Your task to perform on an android device: turn off picture-in-picture Image 0: 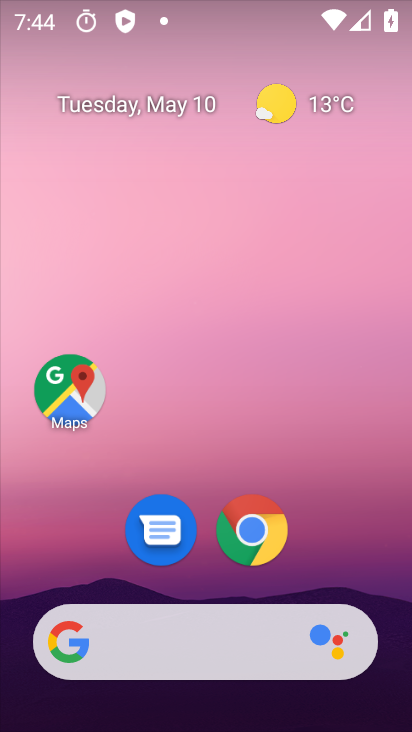
Step 0: click (257, 531)
Your task to perform on an android device: turn off picture-in-picture Image 1: 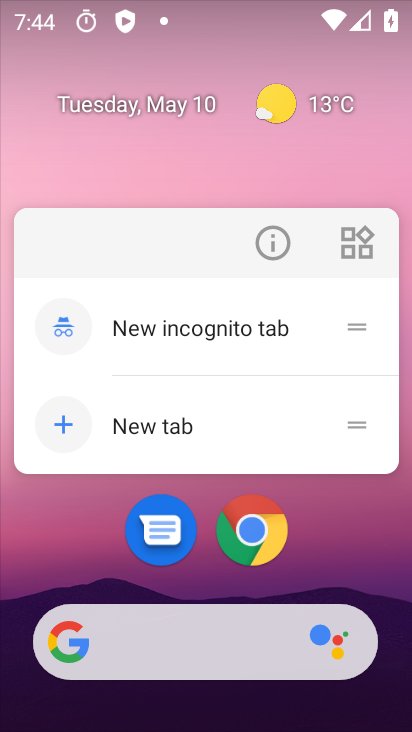
Step 1: click (280, 228)
Your task to perform on an android device: turn off picture-in-picture Image 2: 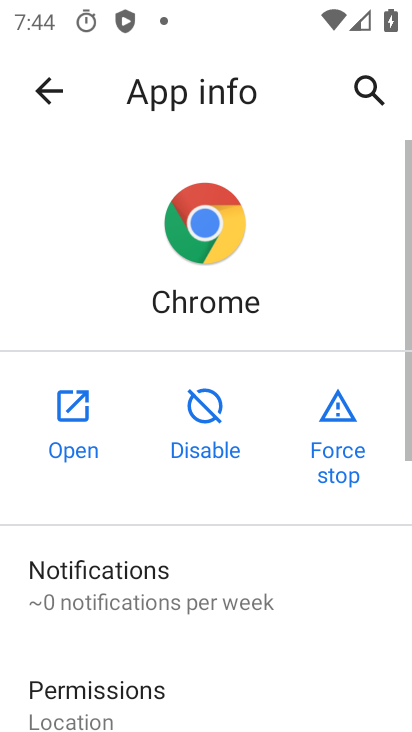
Step 2: drag from (268, 576) to (198, 54)
Your task to perform on an android device: turn off picture-in-picture Image 3: 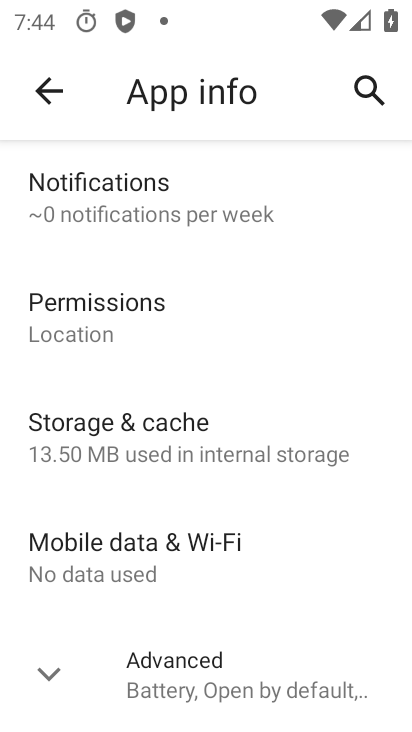
Step 3: drag from (202, 531) to (252, 196)
Your task to perform on an android device: turn off picture-in-picture Image 4: 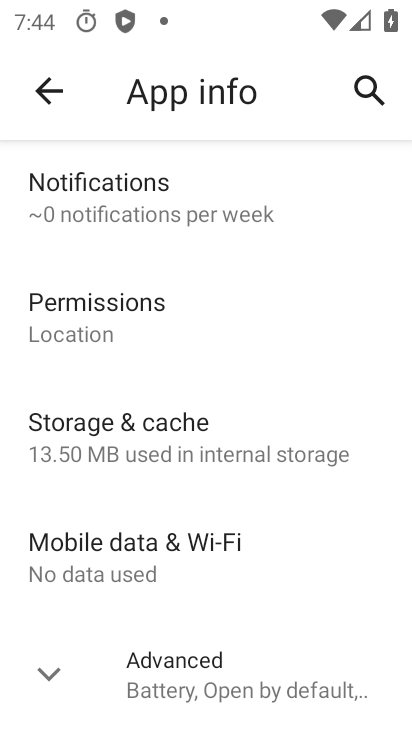
Step 4: click (200, 654)
Your task to perform on an android device: turn off picture-in-picture Image 5: 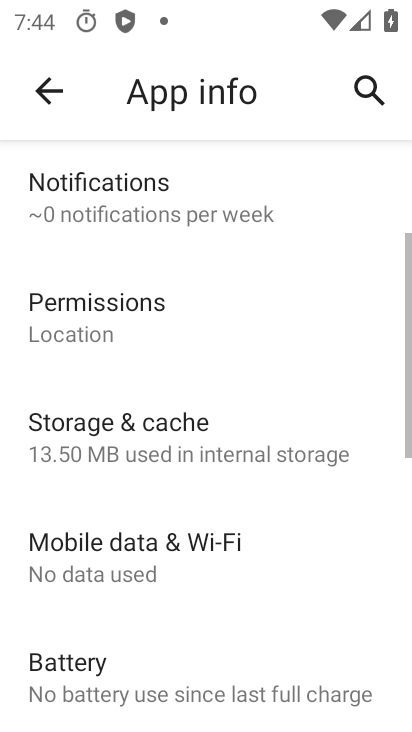
Step 5: drag from (234, 635) to (222, 189)
Your task to perform on an android device: turn off picture-in-picture Image 6: 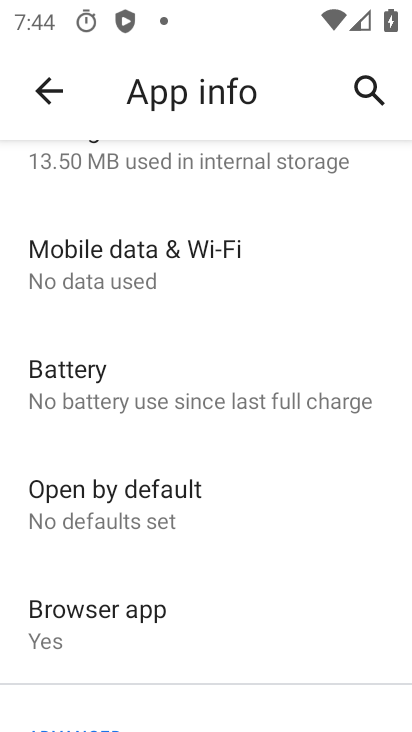
Step 6: drag from (274, 592) to (263, 192)
Your task to perform on an android device: turn off picture-in-picture Image 7: 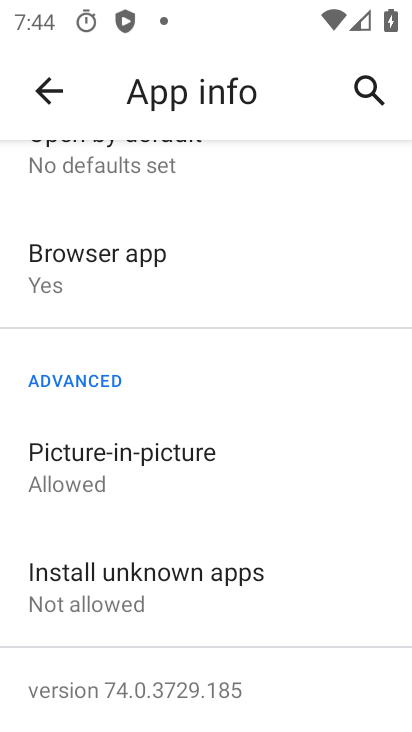
Step 7: click (129, 450)
Your task to perform on an android device: turn off picture-in-picture Image 8: 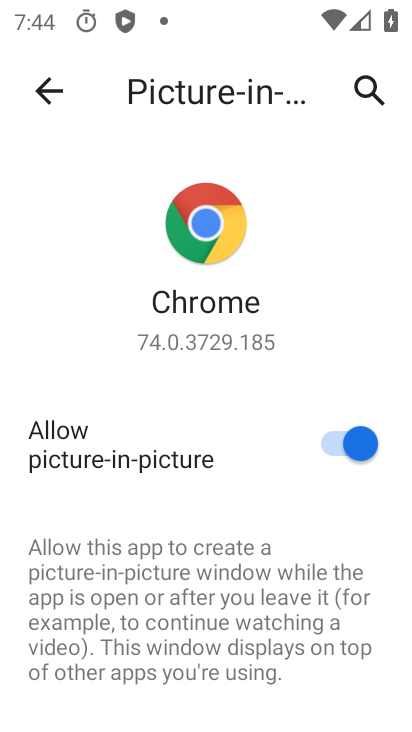
Step 8: click (365, 452)
Your task to perform on an android device: turn off picture-in-picture Image 9: 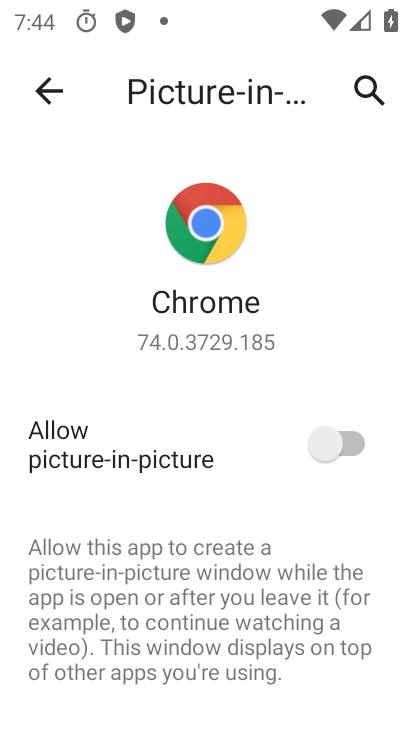
Step 9: task complete